Your task to perform on an android device: install app "Upside-Cash back on gas & food" Image 0: 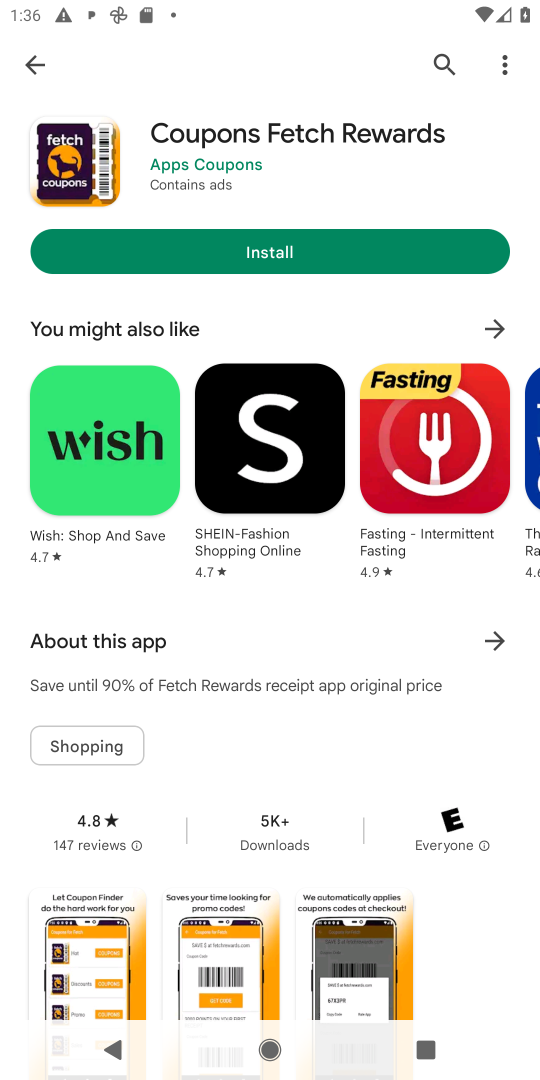
Step 0: press home button
Your task to perform on an android device: install app "Upside-Cash back on gas & food" Image 1: 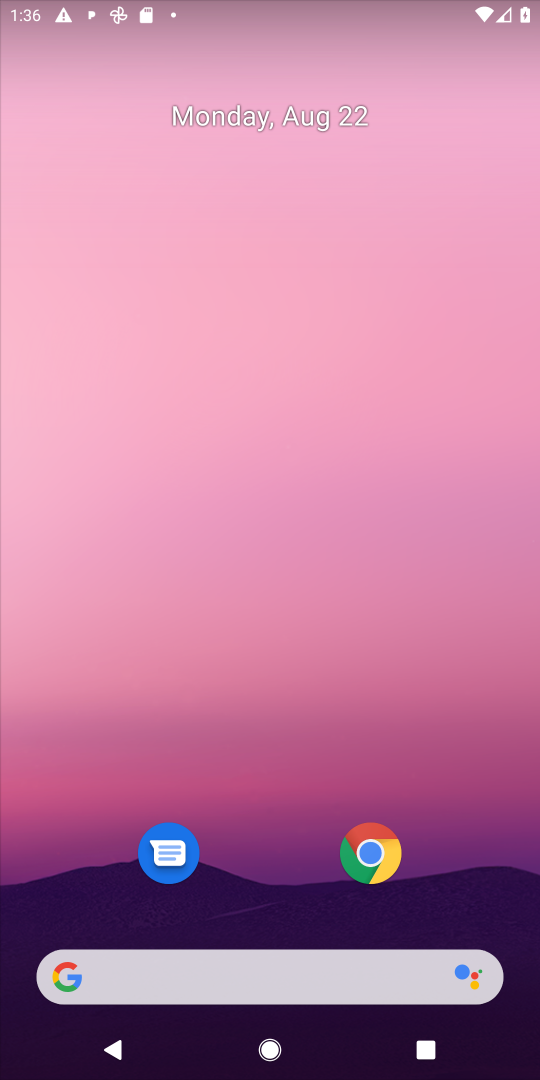
Step 1: drag from (251, 943) to (284, 294)
Your task to perform on an android device: install app "Upside-Cash back on gas & food" Image 2: 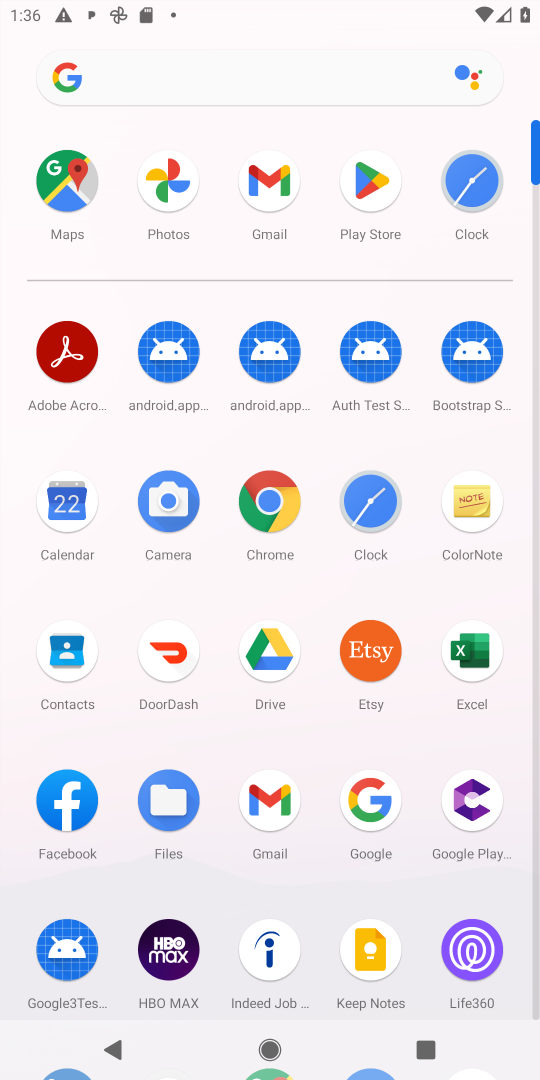
Step 2: click (378, 170)
Your task to perform on an android device: install app "Upside-Cash back on gas & food" Image 3: 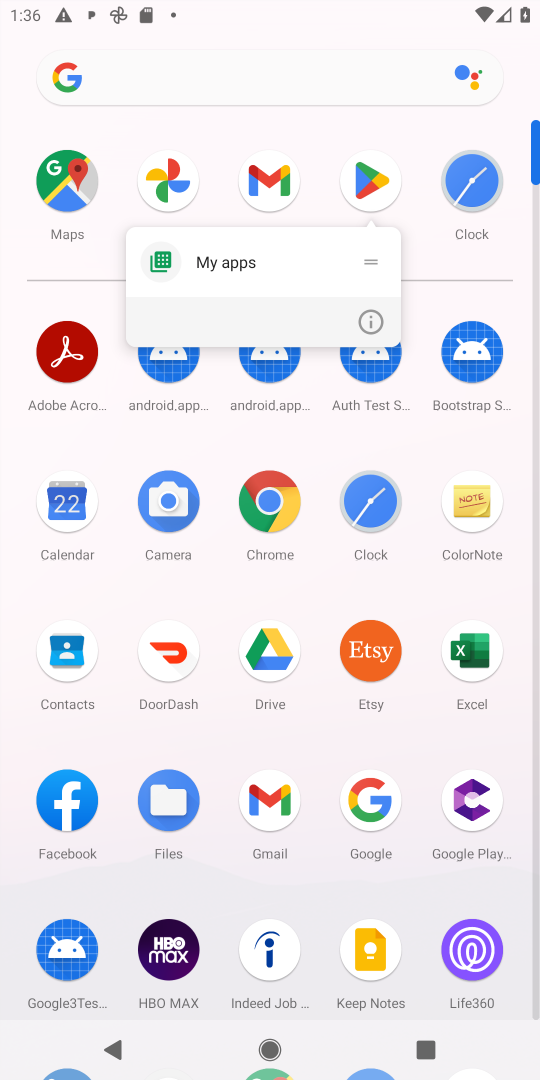
Step 3: click (378, 170)
Your task to perform on an android device: install app "Upside-Cash back on gas & food" Image 4: 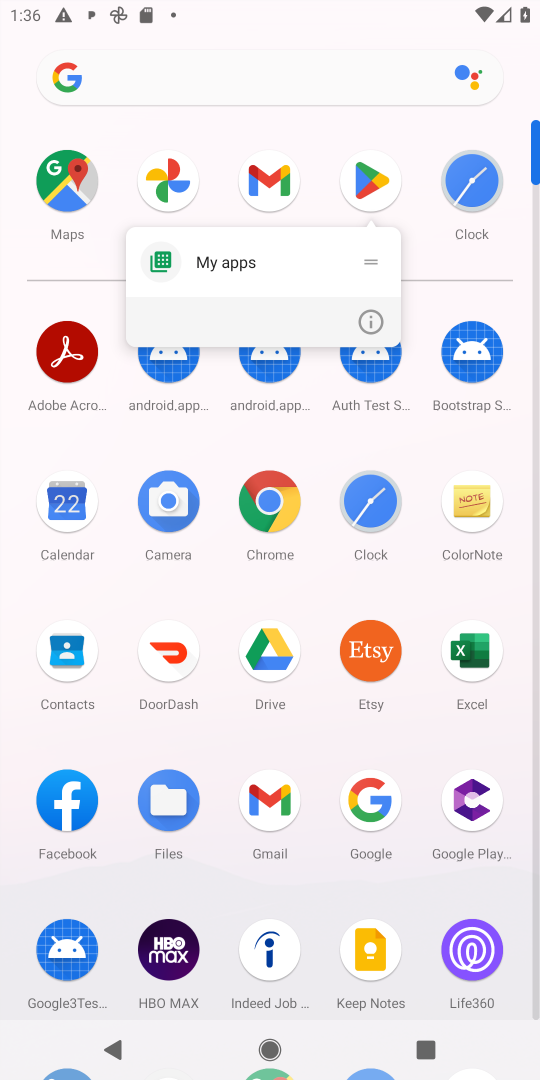
Step 4: click (369, 175)
Your task to perform on an android device: install app "Upside-Cash back on gas & food" Image 5: 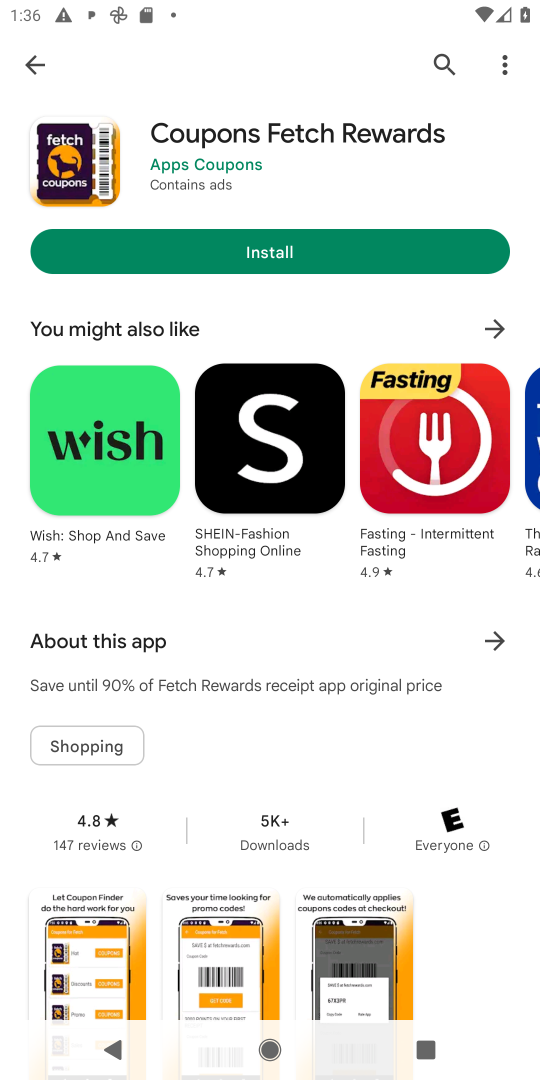
Step 5: click (50, 65)
Your task to perform on an android device: install app "Upside-Cash back on gas & food" Image 6: 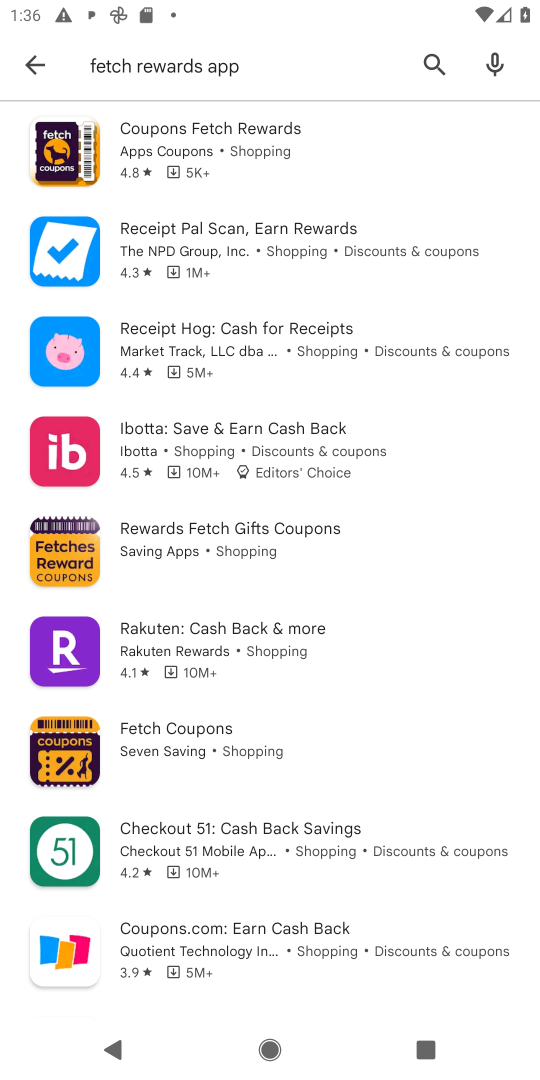
Step 6: click (50, 65)
Your task to perform on an android device: install app "Upside-Cash back on gas & food" Image 7: 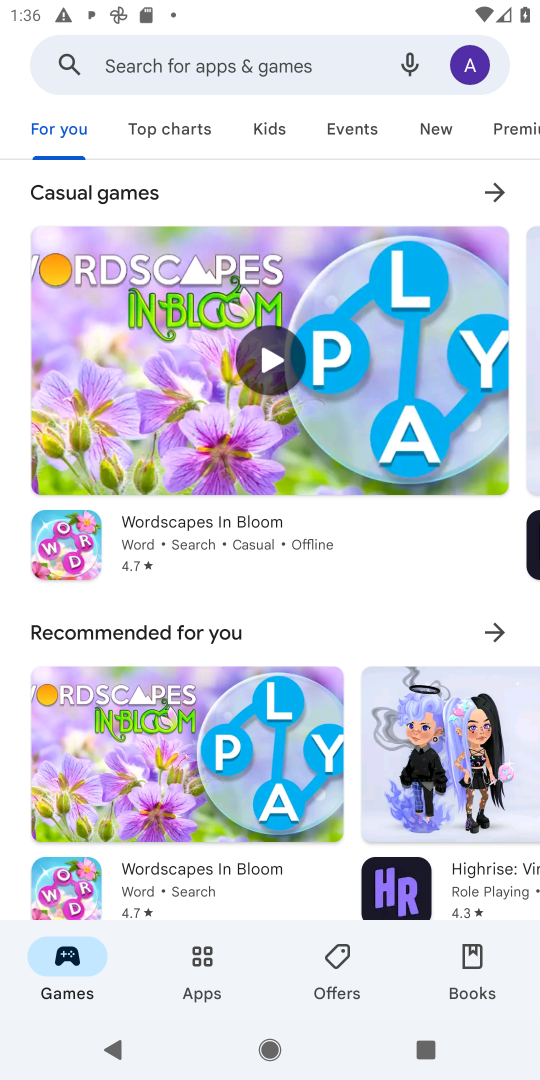
Step 7: click (228, 48)
Your task to perform on an android device: install app "Upside-Cash back on gas & food" Image 8: 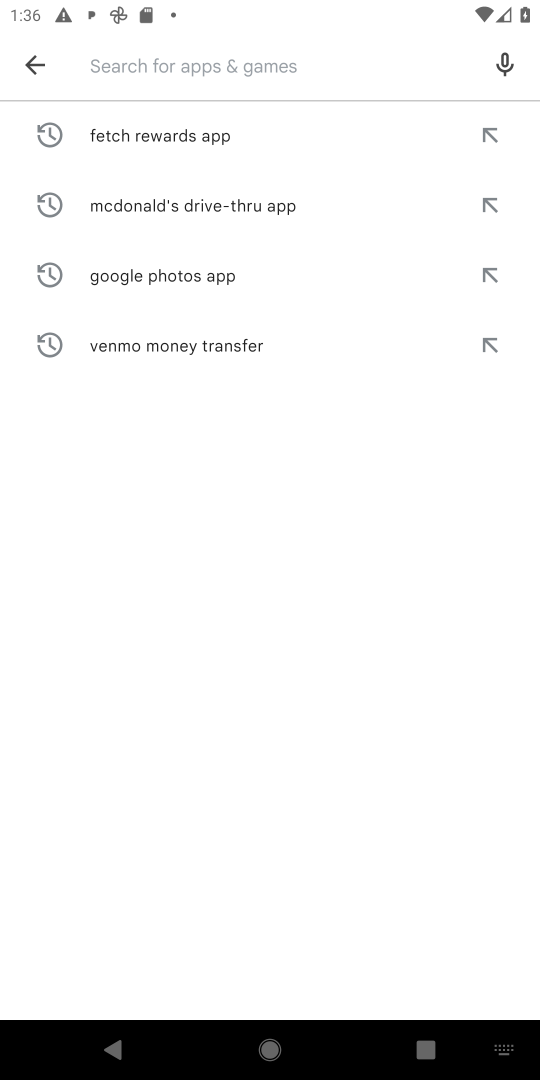
Step 8: type "Upside-Cash back on gas & food "
Your task to perform on an android device: install app "Upside-Cash back on gas & food" Image 9: 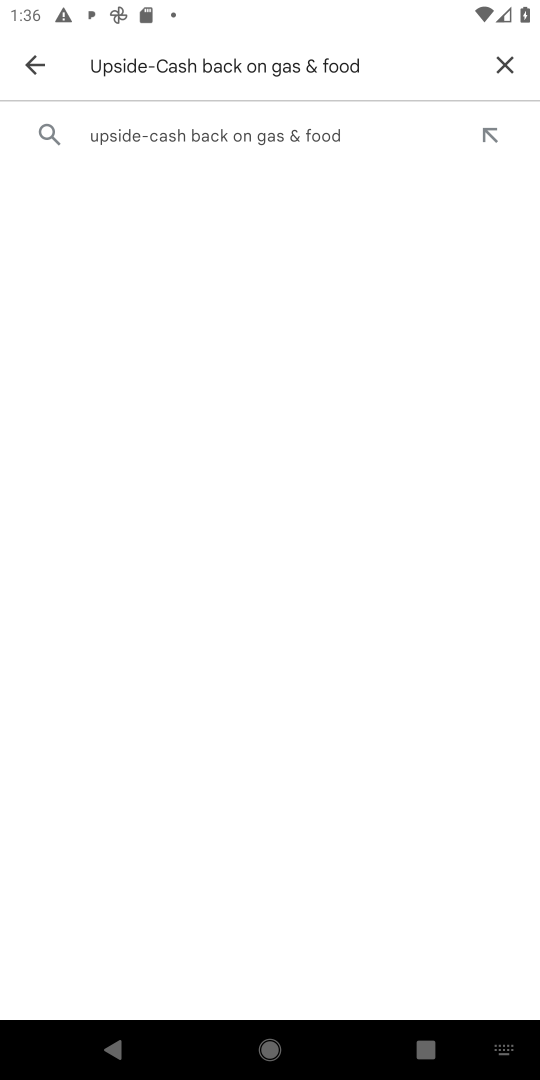
Step 9: click (192, 116)
Your task to perform on an android device: install app "Upside-Cash back on gas & food" Image 10: 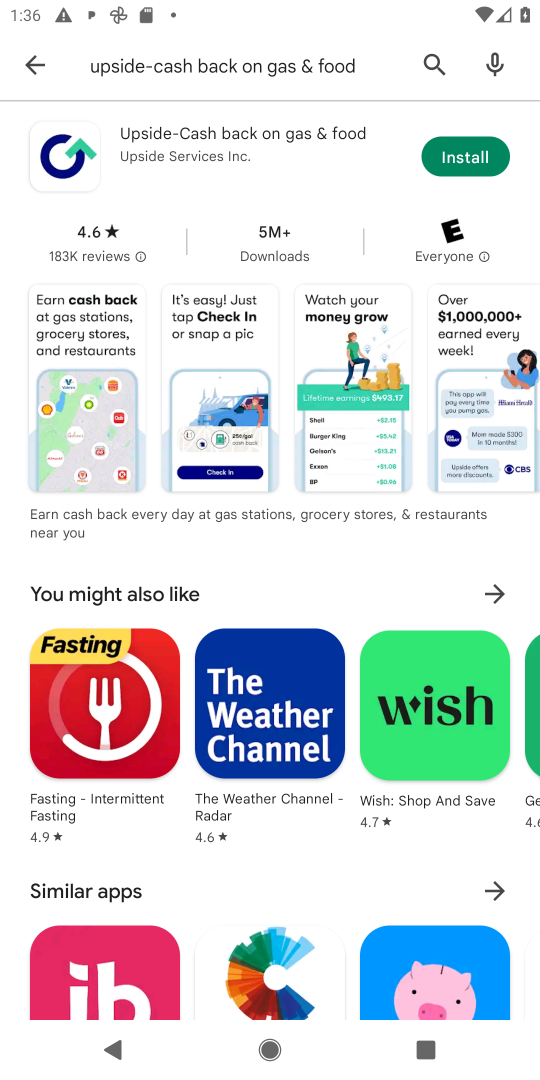
Step 10: click (452, 136)
Your task to perform on an android device: install app "Upside-Cash back on gas & food" Image 11: 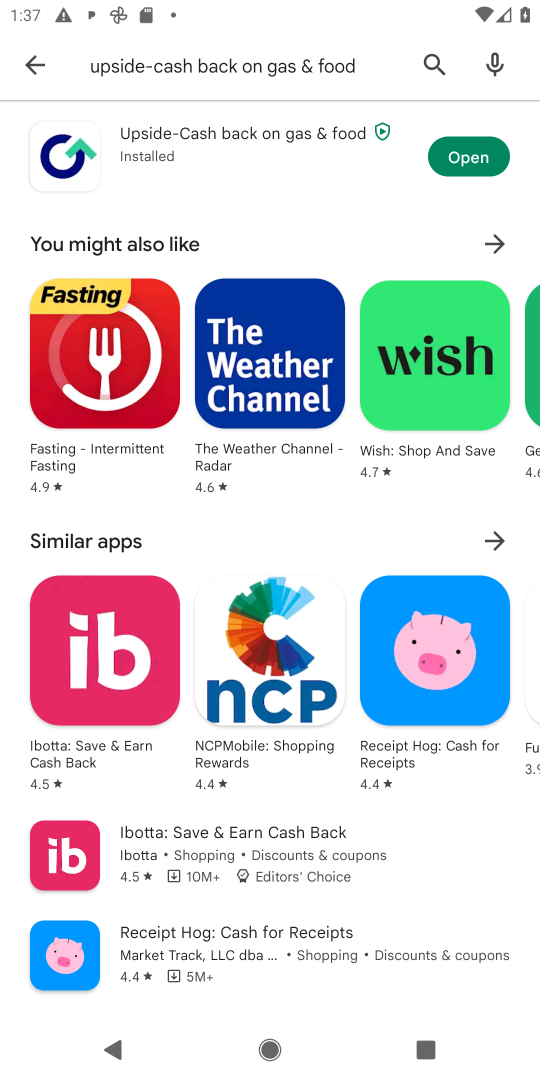
Step 11: click (447, 151)
Your task to perform on an android device: install app "Upside-Cash back on gas & food" Image 12: 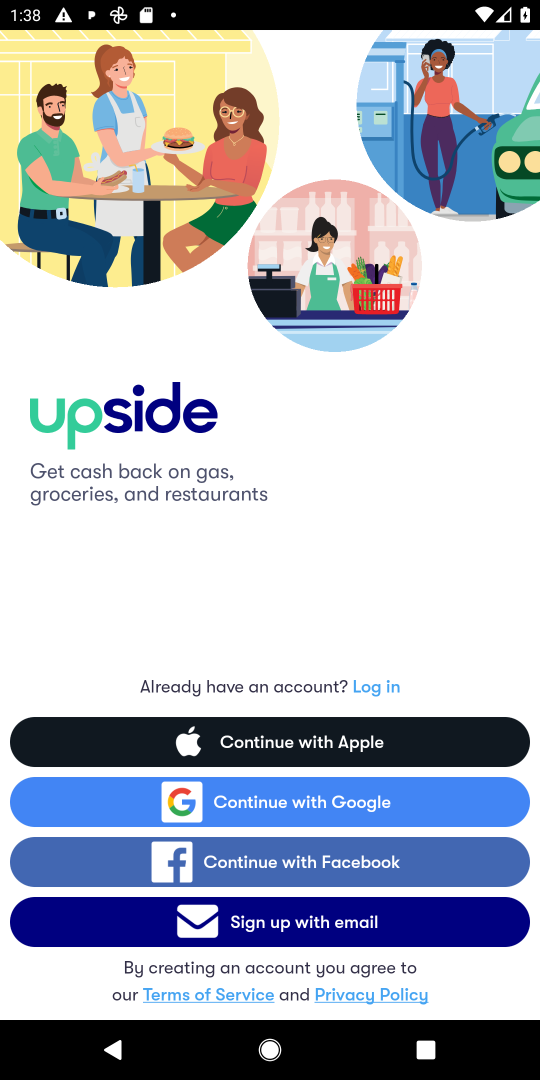
Step 12: task complete